Your task to perform on an android device: Go to internet settings Image 0: 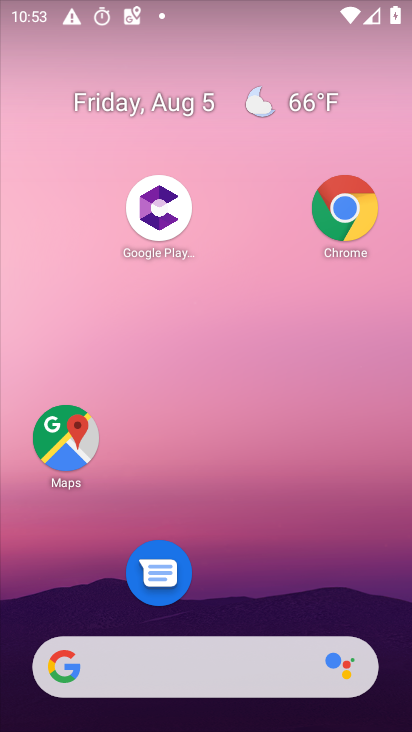
Step 0: press home button
Your task to perform on an android device: Go to internet settings Image 1: 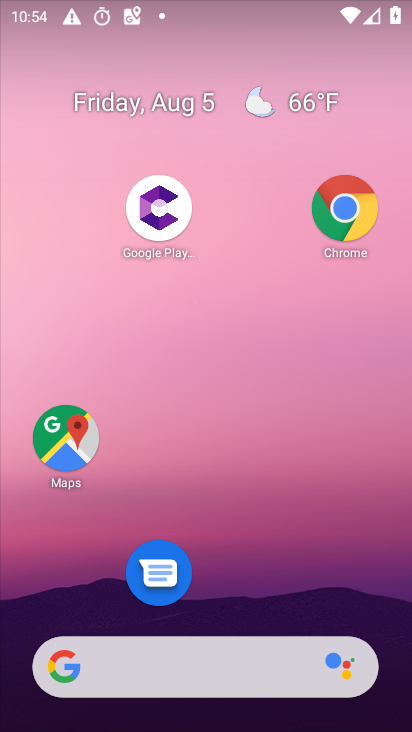
Step 1: drag from (228, 610) to (236, 33)
Your task to perform on an android device: Go to internet settings Image 2: 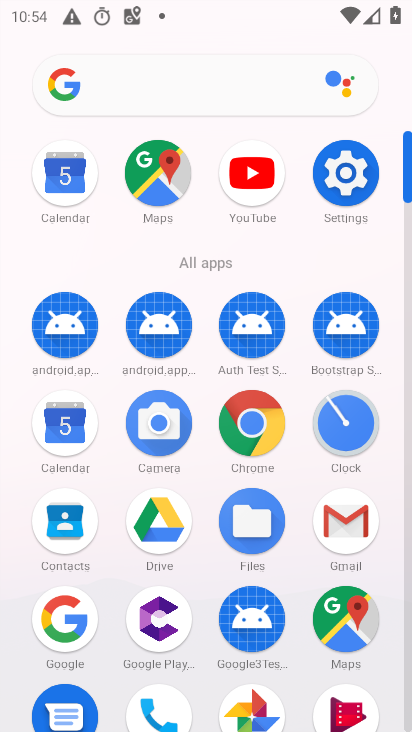
Step 2: click (340, 167)
Your task to perform on an android device: Go to internet settings Image 3: 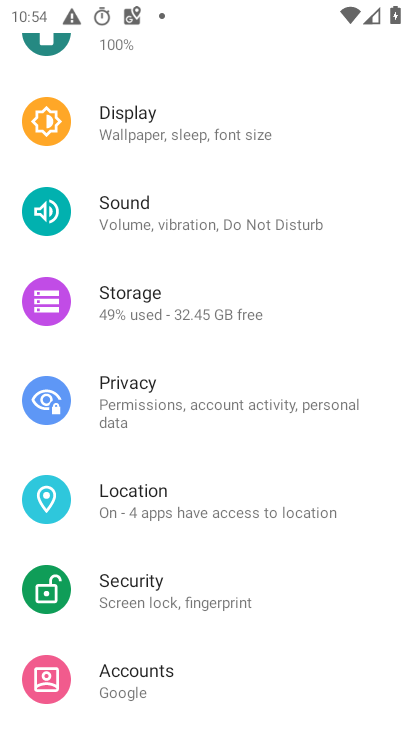
Step 3: drag from (82, 123) to (93, 670)
Your task to perform on an android device: Go to internet settings Image 4: 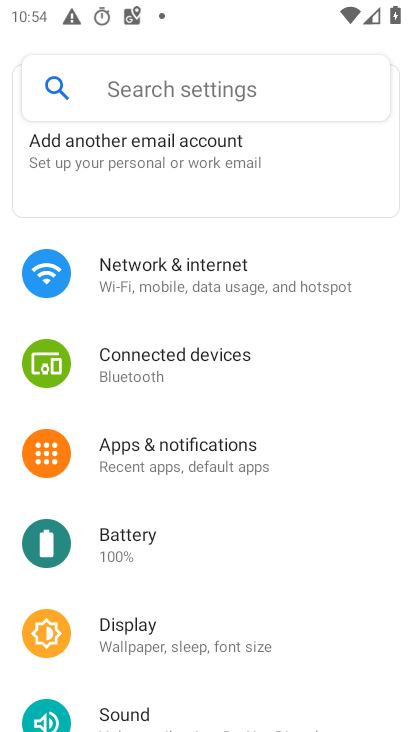
Step 4: click (84, 273)
Your task to perform on an android device: Go to internet settings Image 5: 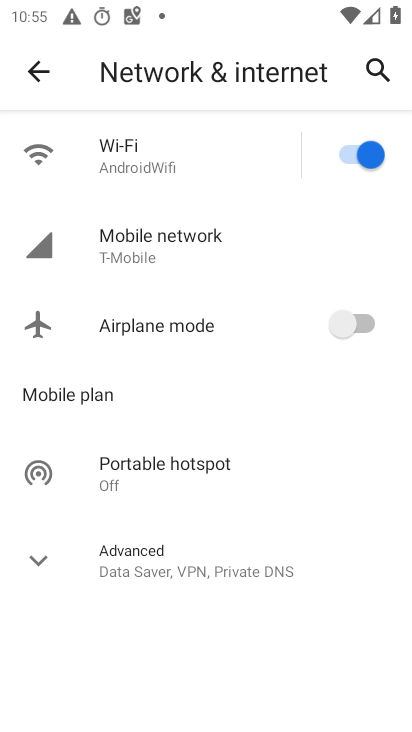
Step 5: click (34, 551)
Your task to perform on an android device: Go to internet settings Image 6: 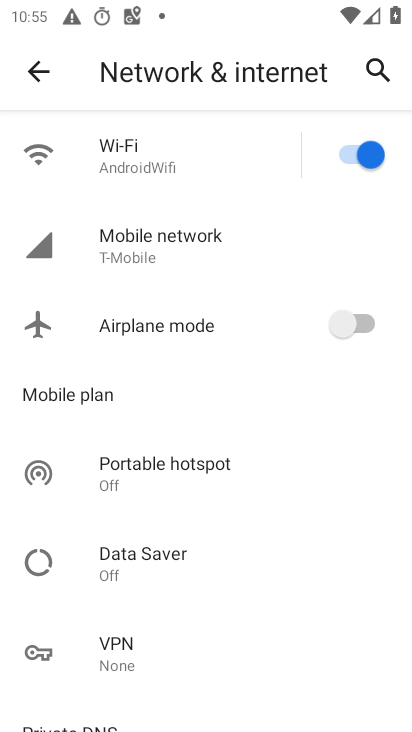
Step 6: task complete